Your task to perform on an android device: change alarm snooze length Image 0: 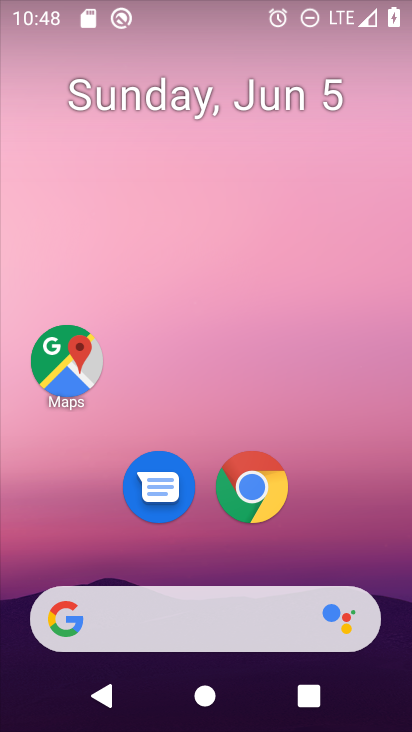
Step 0: drag from (304, 551) to (292, 105)
Your task to perform on an android device: change alarm snooze length Image 1: 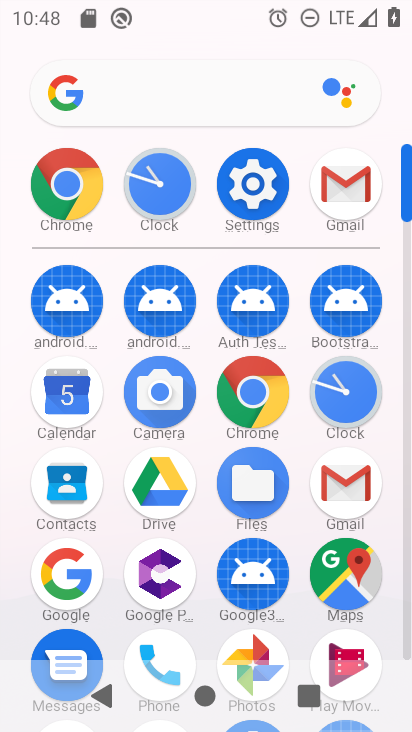
Step 1: click (342, 397)
Your task to perform on an android device: change alarm snooze length Image 2: 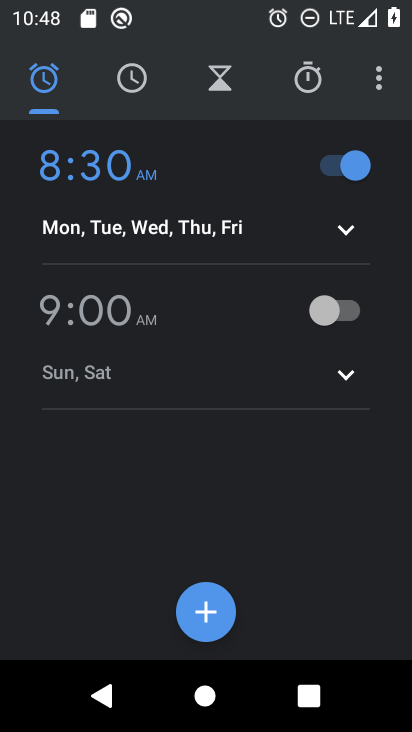
Step 2: click (366, 71)
Your task to perform on an android device: change alarm snooze length Image 3: 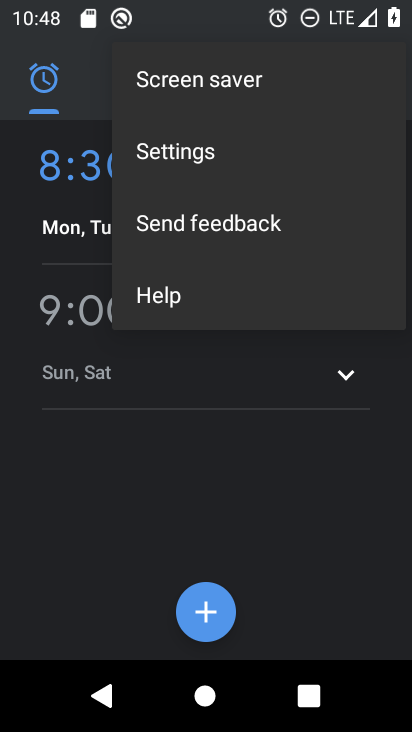
Step 3: click (178, 162)
Your task to perform on an android device: change alarm snooze length Image 4: 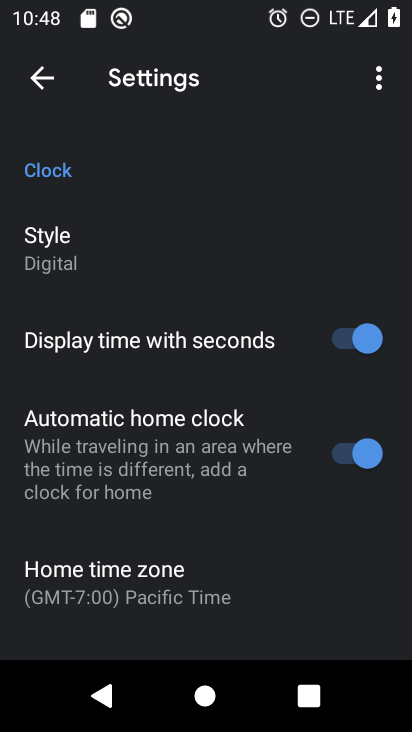
Step 4: drag from (187, 585) to (213, 198)
Your task to perform on an android device: change alarm snooze length Image 5: 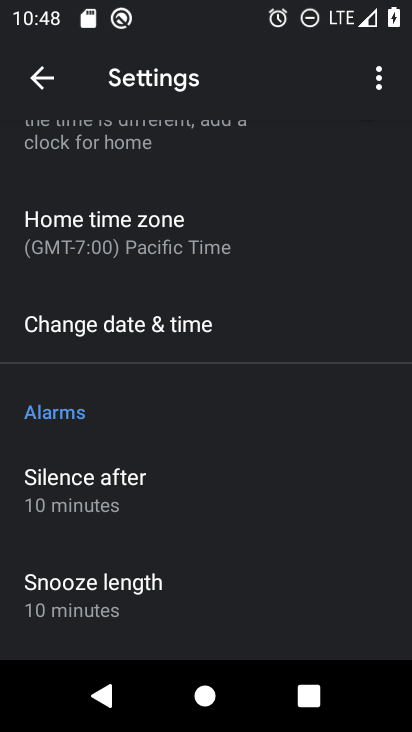
Step 5: drag from (188, 500) to (200, 337)
Your task to perform on an android device: change alarm snooze length Image 6: 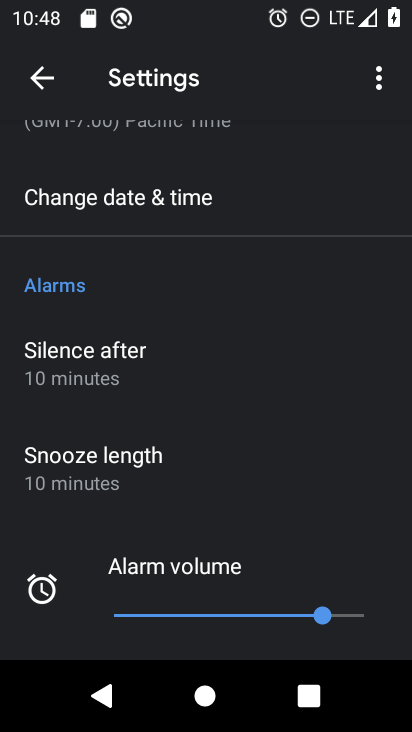
Step 6: click (113, 456)
Your task to perform on an android device: change alarm snooze length Image 7: 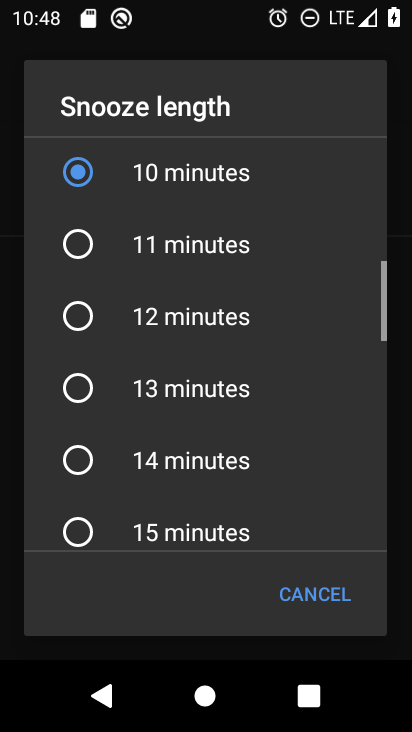
Step 7: click (201, 454)
Your task to perform on an android device: change alarm snooze length Image 8: 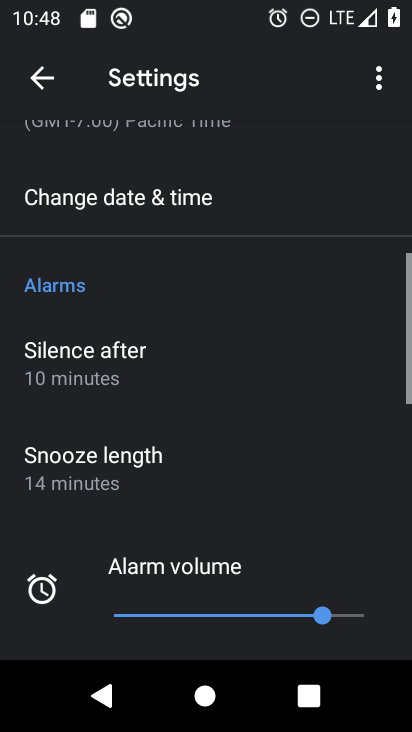
Step 8: task complete